Your task to perform on an android device: set the stopwatch Image 0: 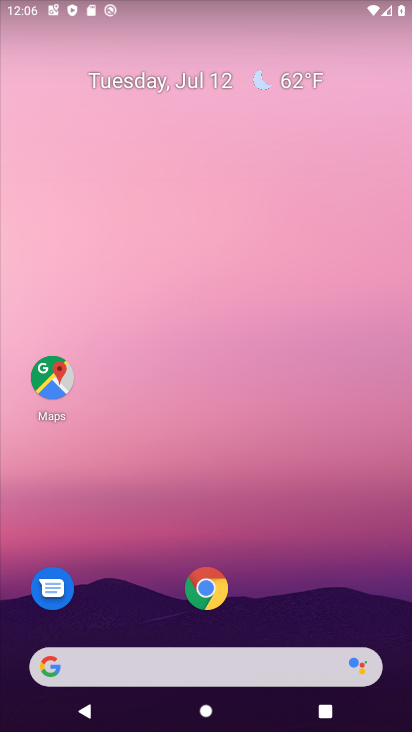
Step 0: drag from (138, 392) to (141, 136)
Your task to perform on an android device: set the stopwatch Image 1: 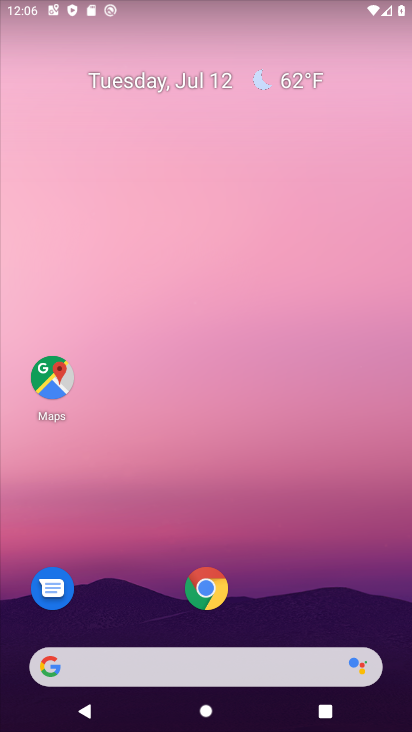
Step 1: drag from (165, 532) to (197, 8)
Your task to perform on an android device: set the stopwatch Image 2: 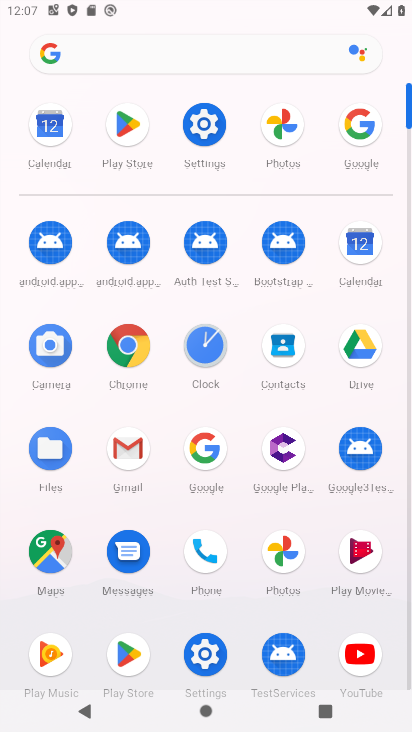
Step 2: click (205, 349)
Your task to perform on an android device: set the stopwatch Image 3: 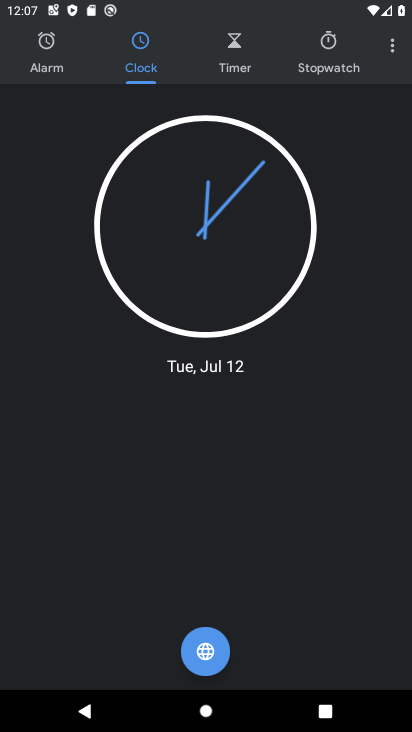
Step 3: click (332, 64)
Your task to perform on an android device: set the stopwatch Image 4: 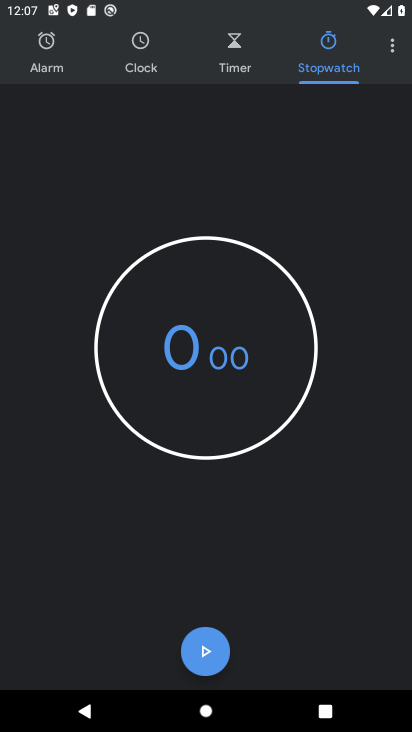
Step 4: click (191, 648)
Your task to perform on an android device: set the stopwatch Image 5: 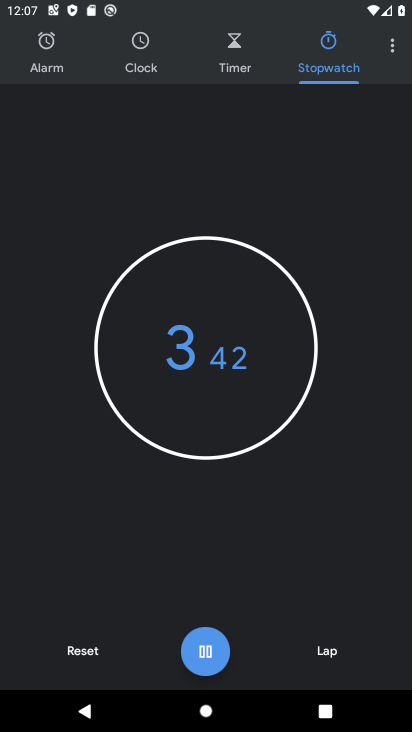
Step 5: click (191, 648)
Your task to perform on an android device: set the stopwatch Image 6: 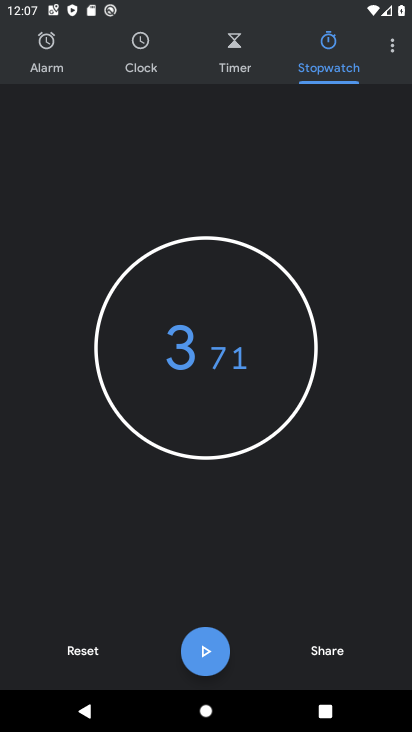
Step 6: task complete